Your task to perform on an android device: Open the Play Movies app and select the watchlist tab. Image 0: 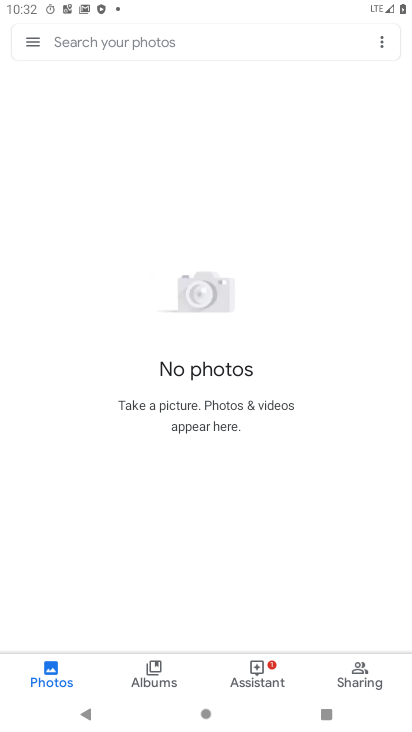
Step 0: press home button
Your task to perform on an android device: Open the Play Movies app and select the watchlist tab. Image 1: 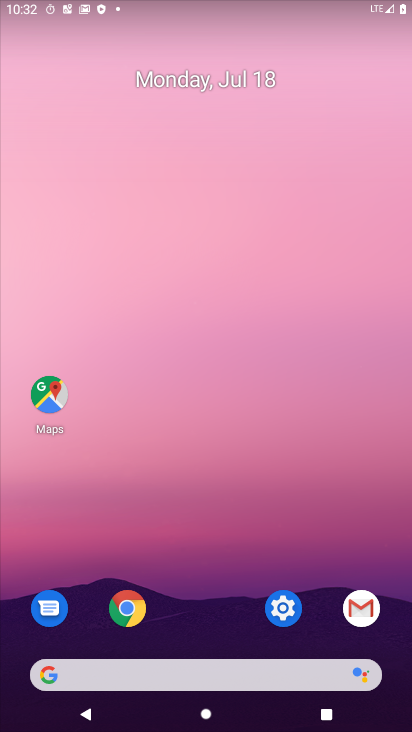
Step 1: drag from (328, 696) to (202, 183)
Your task to perform on an android device: Open the Play Movies app and select the watchlist tab. Image 2: 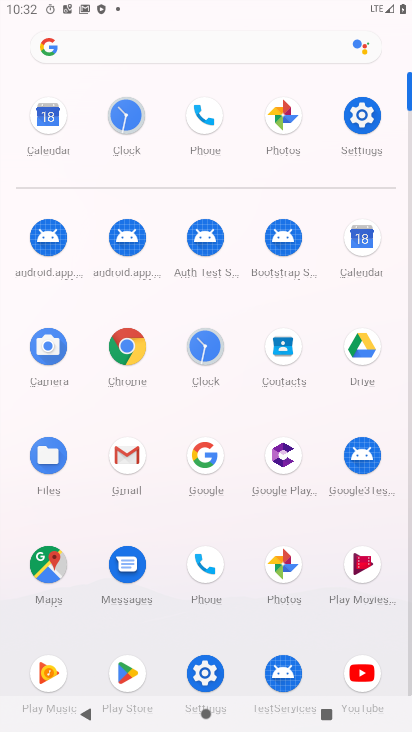
Step 2: click (360, 567)
Your task to perform on an android device: Open the Play Movies app and select the watchlist tab. Image 3: 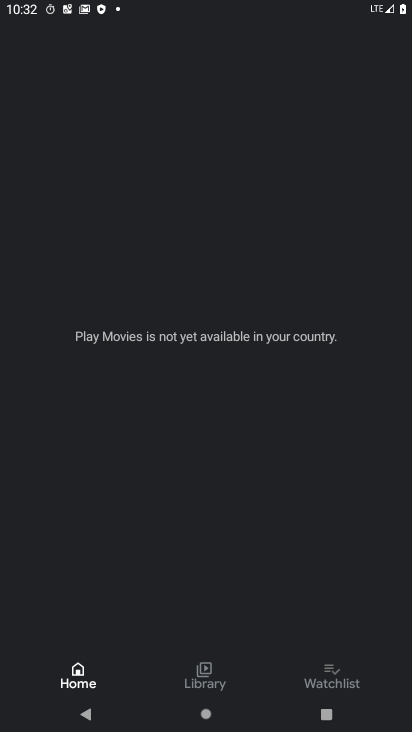
Step 3: click (337, 677)
Your task to perform on an android device: Open the Play Movies app and select the watchlist tab. Image 4: 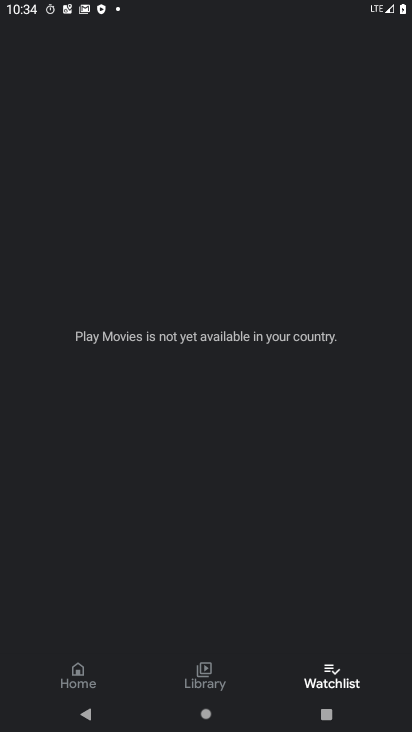
Step 4: task complete